Your task to perform on an android device: Is it going to rain this weekend? Image 0: 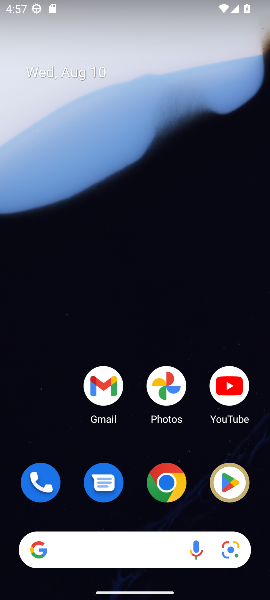
Step 0: drag from (50, 434) to (125, 39)
Your task to perform on an android device: Is it going to rain this weekend? Image 1: 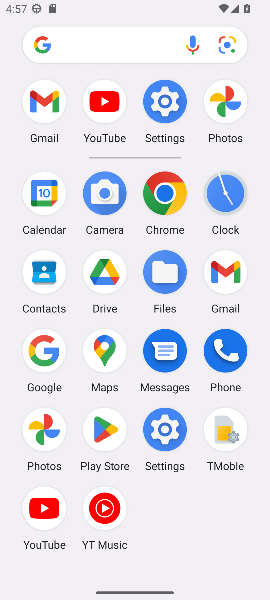
Step 1: click (46, 350)
Your task to perform on an android device: Is it going to rain this weekend? Image 2: 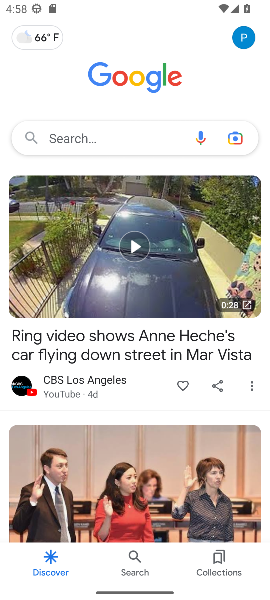
Step 2: click (51, 38)
Your task to perform on an android device: Is it going to rain this weekend? Image 3: 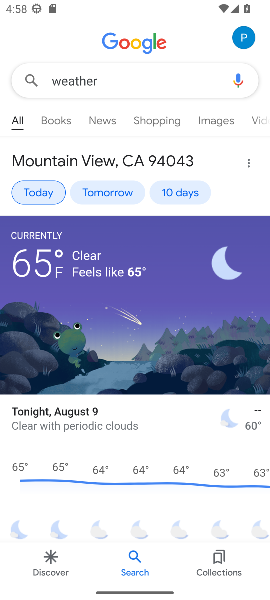
Step 3: click (172, 193)
Your task to perform on an android device: Is it going to rain this weekend? Image 4: 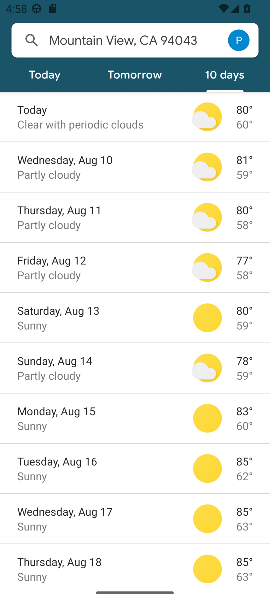
Step 4: click (120, 314)
Your task to perform on an android device: Is it going to rain this weekend? Image 5: 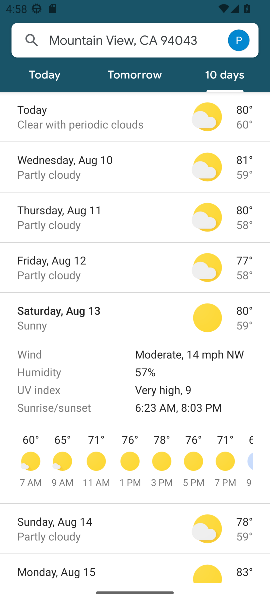
Step 5: task complete